Your task to perform on an android device: toggle priority inbox in the gmail app Image 0: 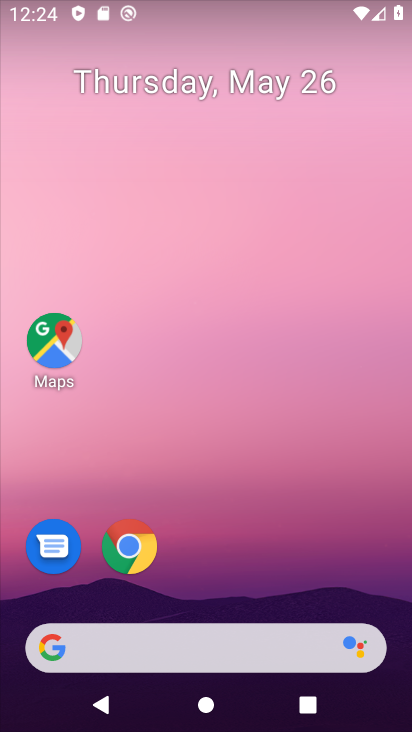
Step 0: drag from (391, 638) to (316, 75)
Your task to perform on an android device: toggle priority inbox in the gmail app Image 1: 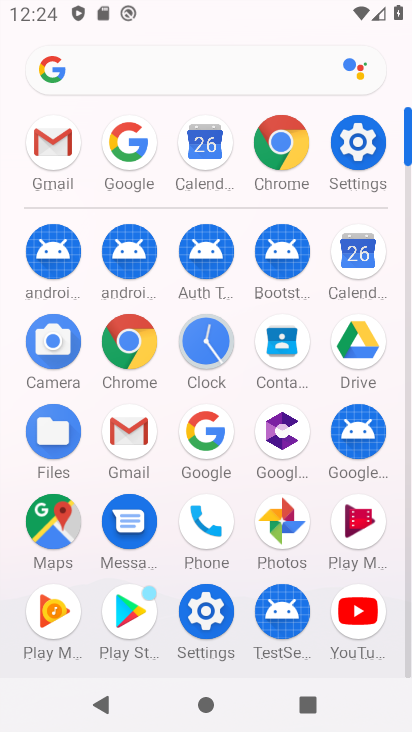
Step 1: click (147, 441)
Your task to perform on an android device: toggle priority inbox in the gmail app Image 2: 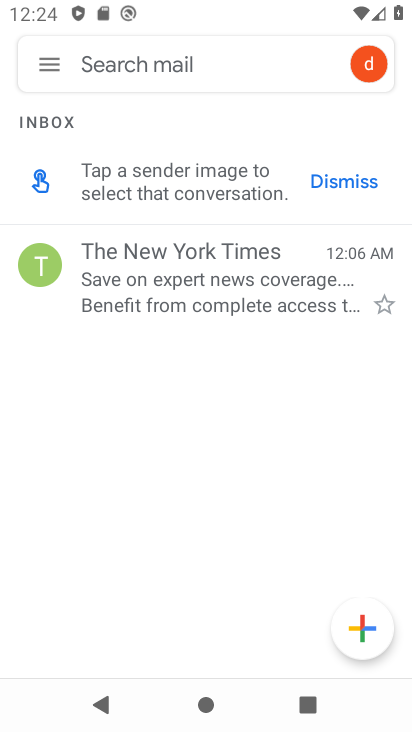
Step 2: click (49, 72)
Your task to perform on an android device: toggle priority inbox in the gmail app Image 3: 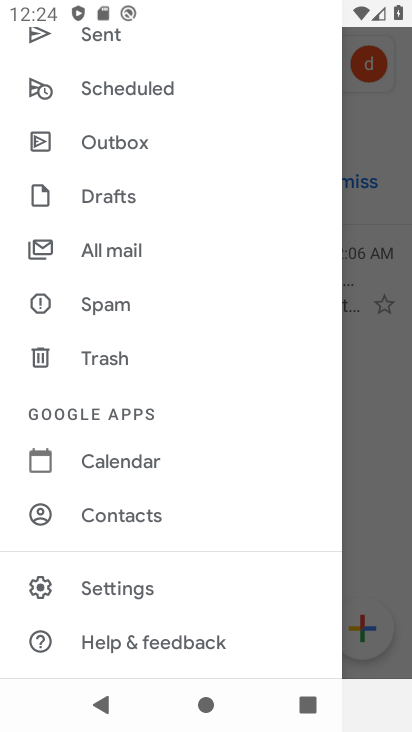
Step 3: click (155, 596)
Your task to perform on an android device: toggle priority inbox in the gmail app Image 4: 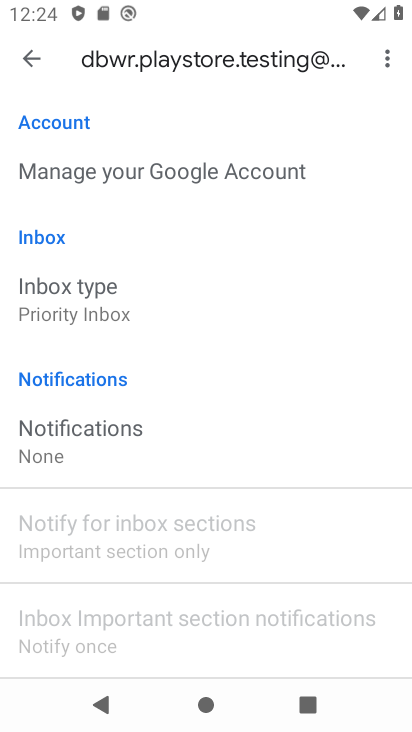
Step 4: click (102, 326)
Your task to perform on an android device: toggle priority inbox in the gmail app Image 5: 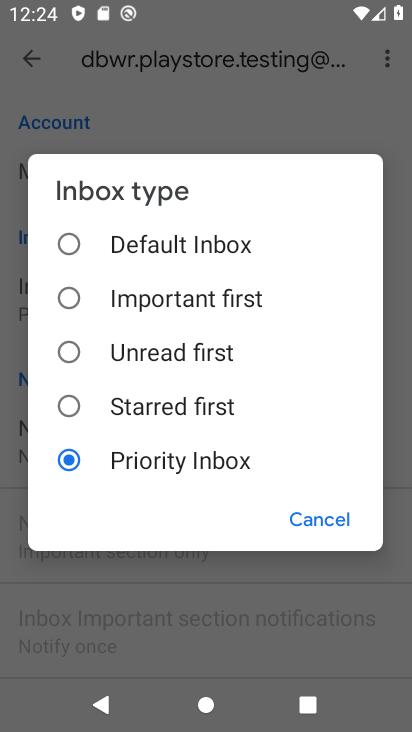
Step 5: click (77, 248)
Your task to perform on an android device: toggle priority inbox in the gmail app Image 6: 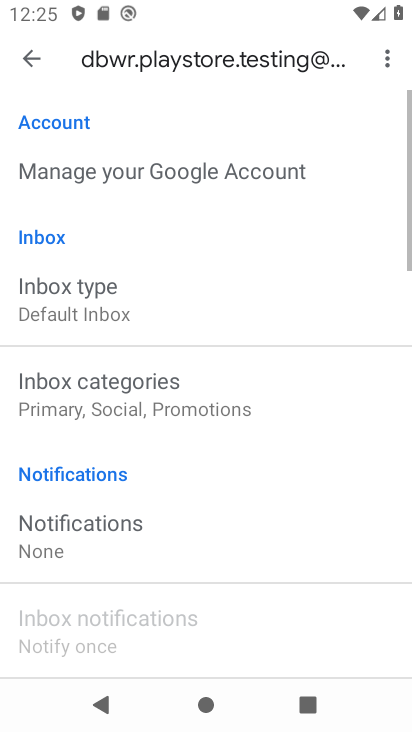
Step 6: task complete